Your task to perform on an android device: Open Wikipedia Image 0: 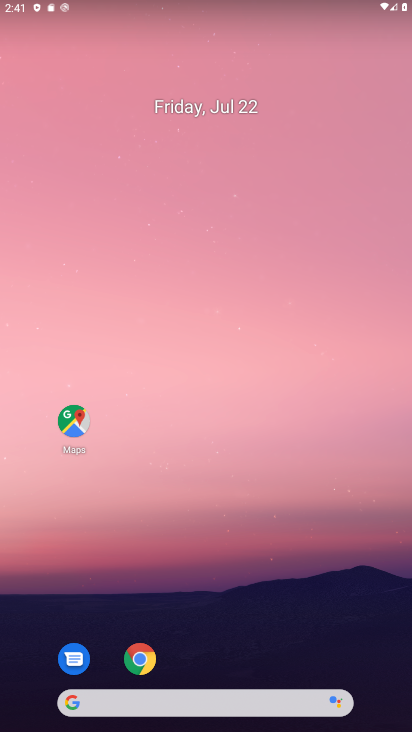
Step 0: task complete